Your task to perform on an android device: Toggle the flashlight Image 0: 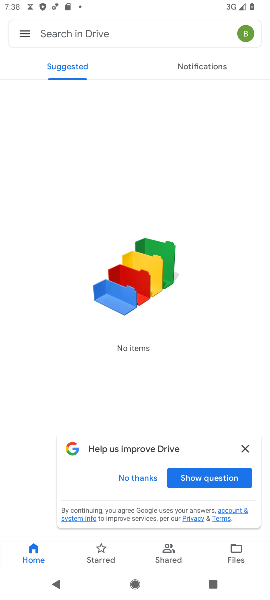
Step 0: press home button
Your task to perform on an android device: Toggle the flashlight Image 1: 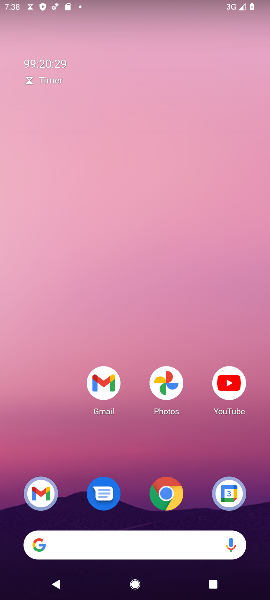
Step 1: drag from (117, 494) to (156, 15)
Your task to perform on an android device: Toggle the flashlight Image 2: 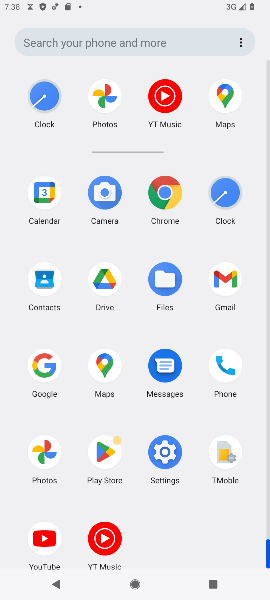
Step 2: click (164, 453)
Your task to perform on an android device: Toggle the flashlight Image 3: 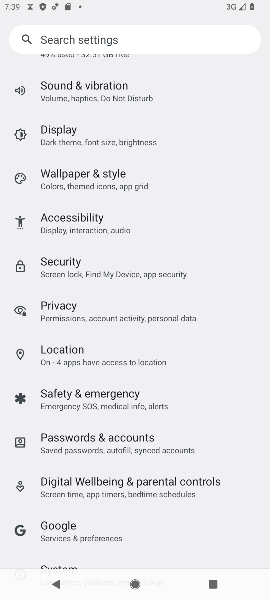
Step 3: task complete